Your task to perform on an android device: Clear the cart on ebay.com. Image 0: 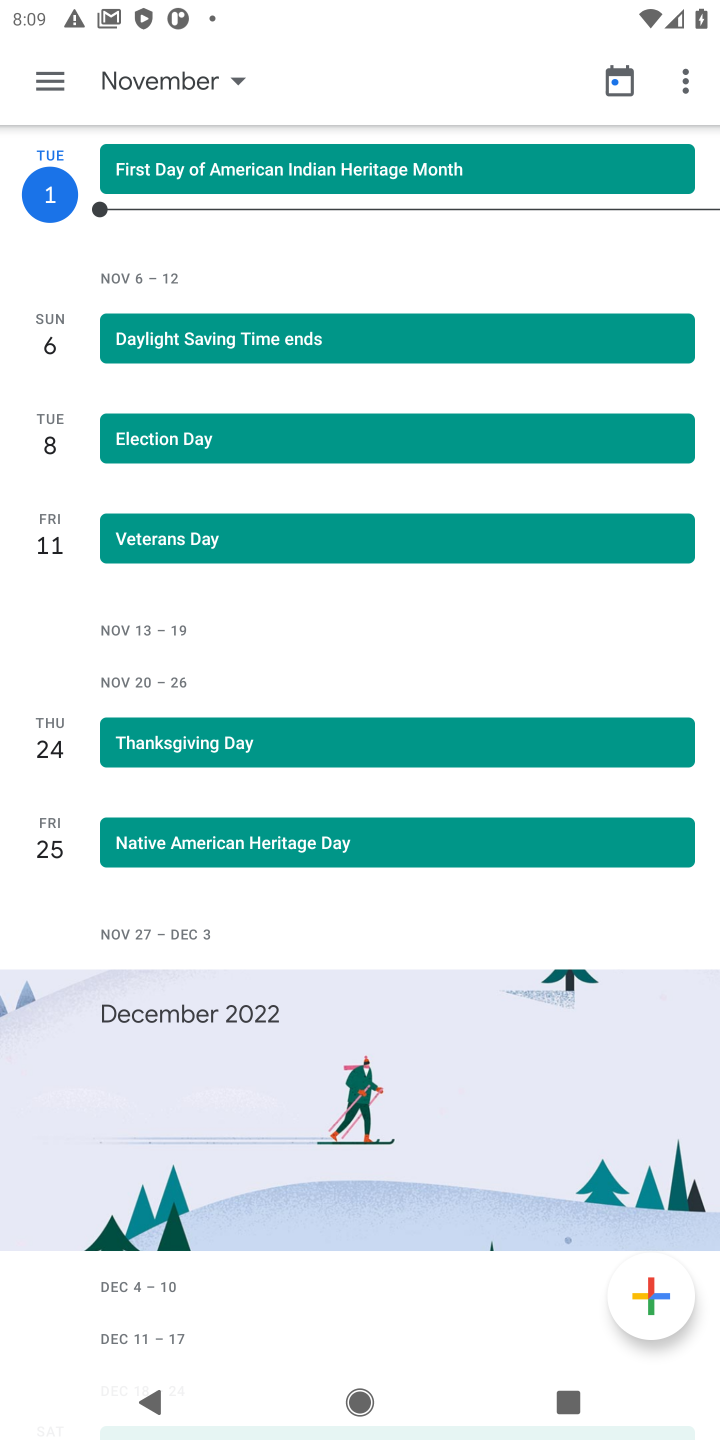
Step 0: press home button
Your task to perform on an android device: Clear the cart on ebay.com. Image 1: 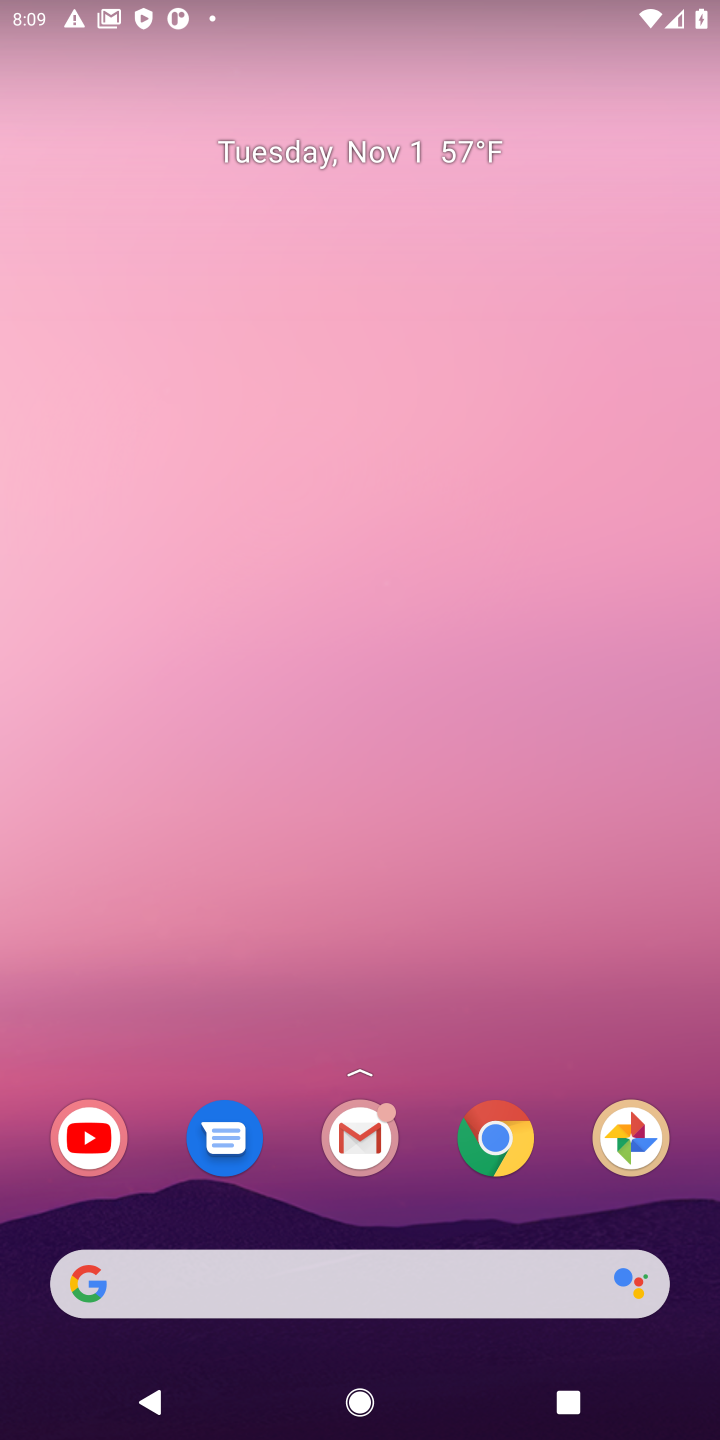
Step 1: click (504, 1139)
Your task to perform on an android device: Clear the cart on ebay.com. Image 2: 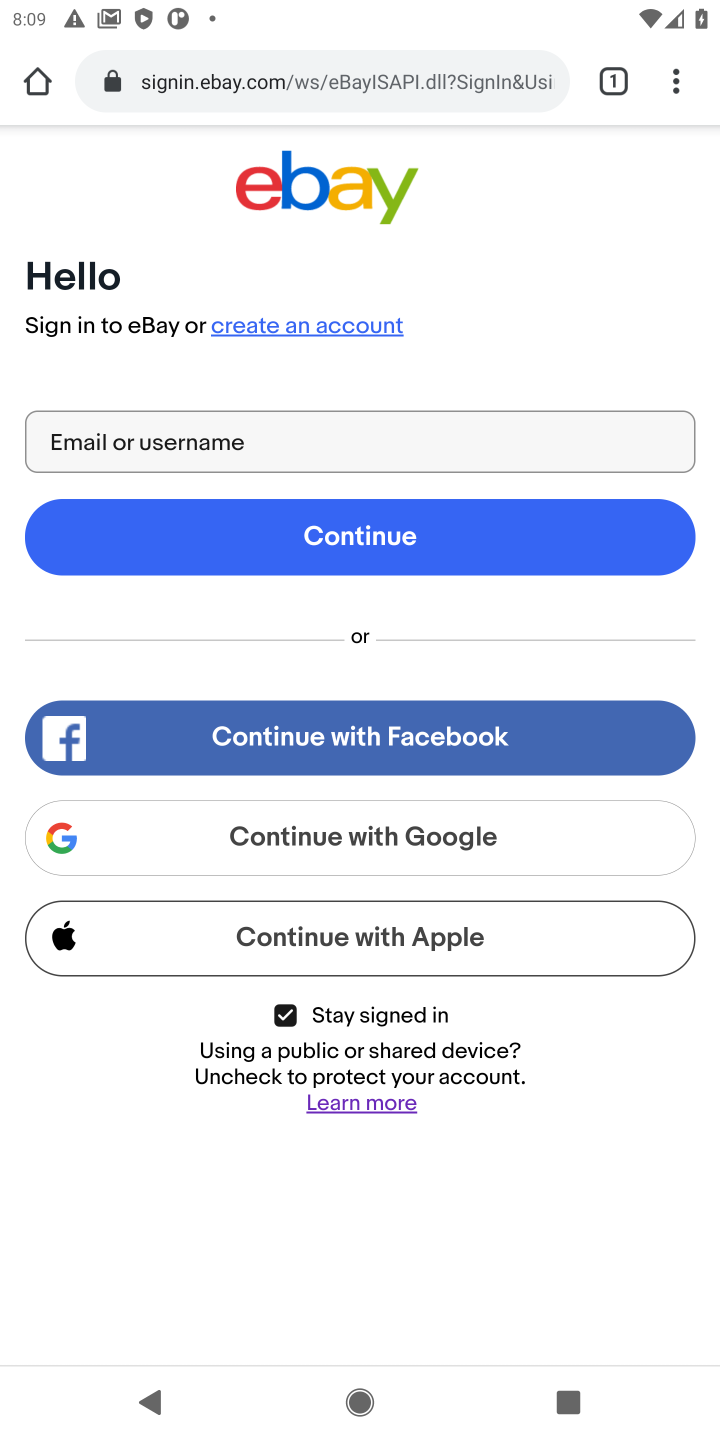
Step 2: click (235, 88)
Your task to perform on an android device: Clear the cart on ebay.com. Image 3: 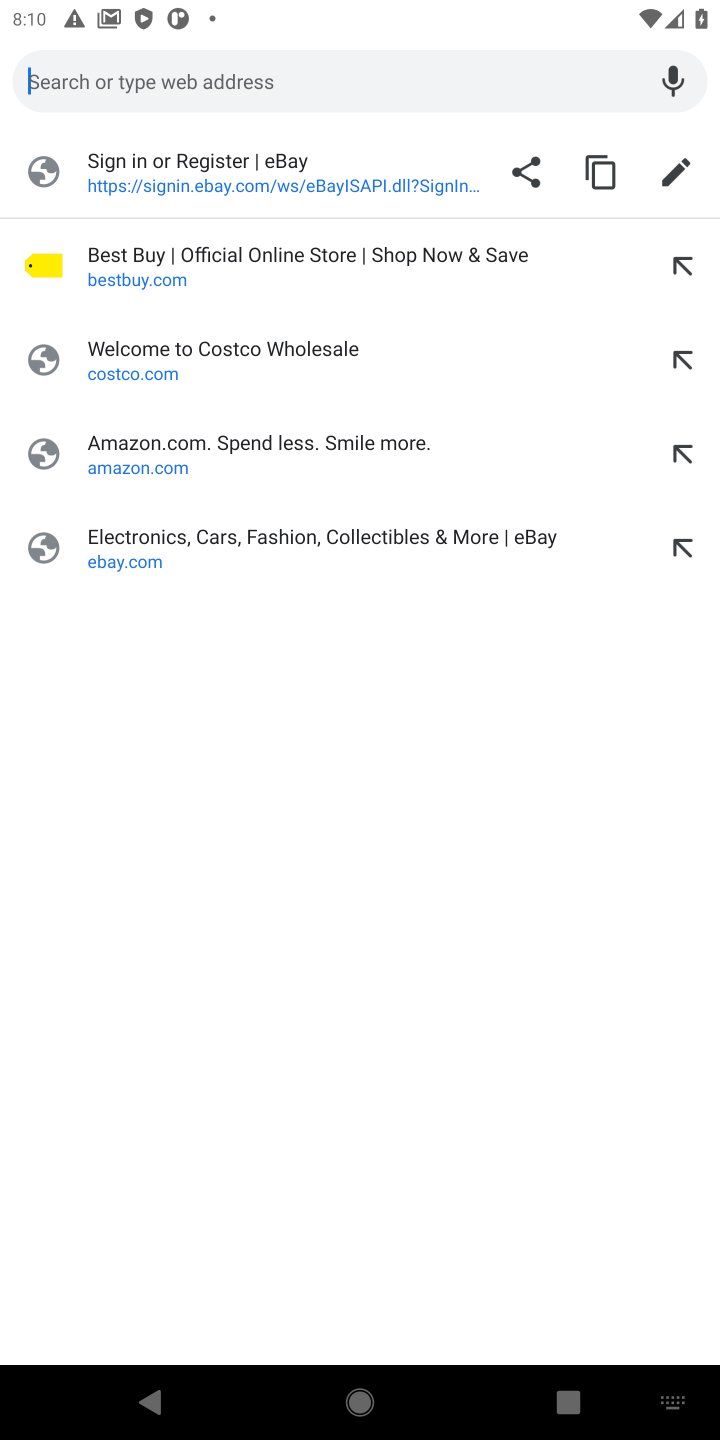
Step 3: type "ebay.com"
Your task to perform on an android device: Clear the cart on ebay.com. Image 4: 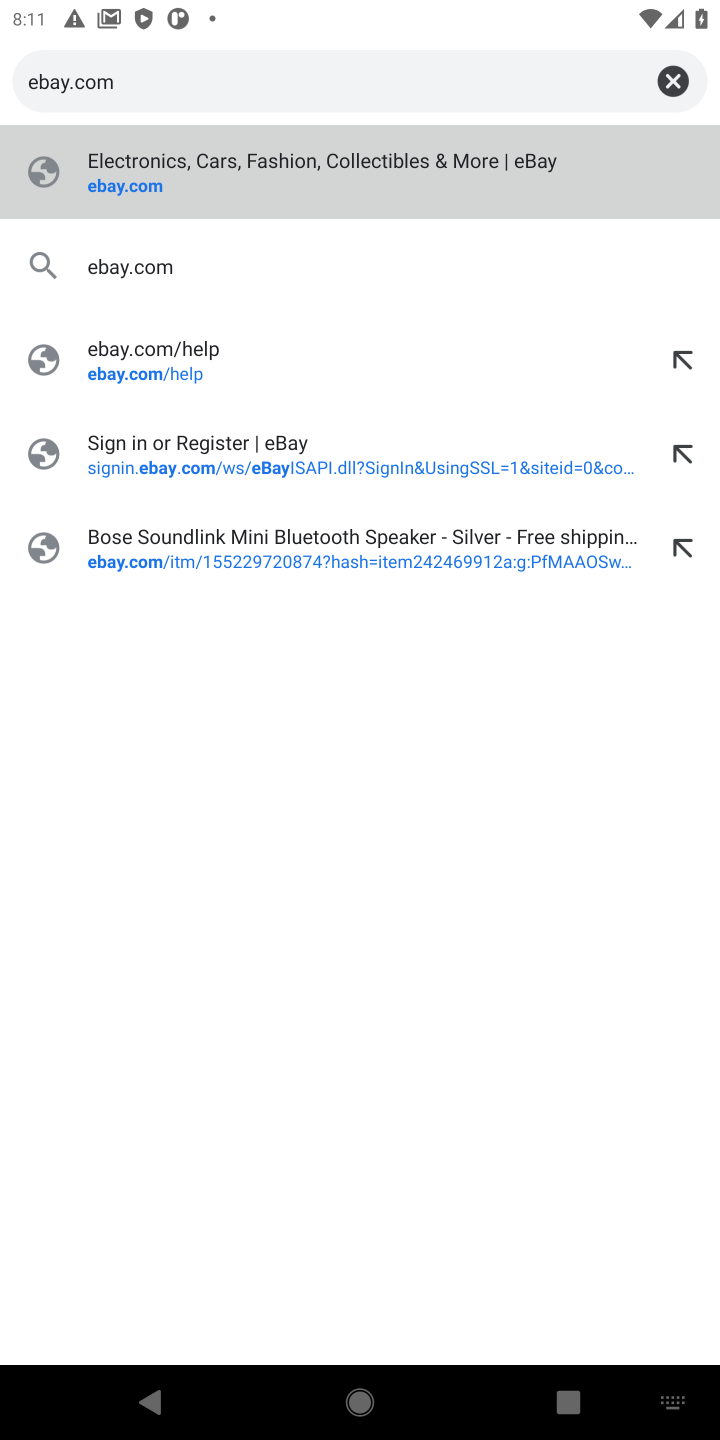
Step 4: click (136, 196)
Your task to perform on an android device: Clear the cart on ebay.com. Image 5: 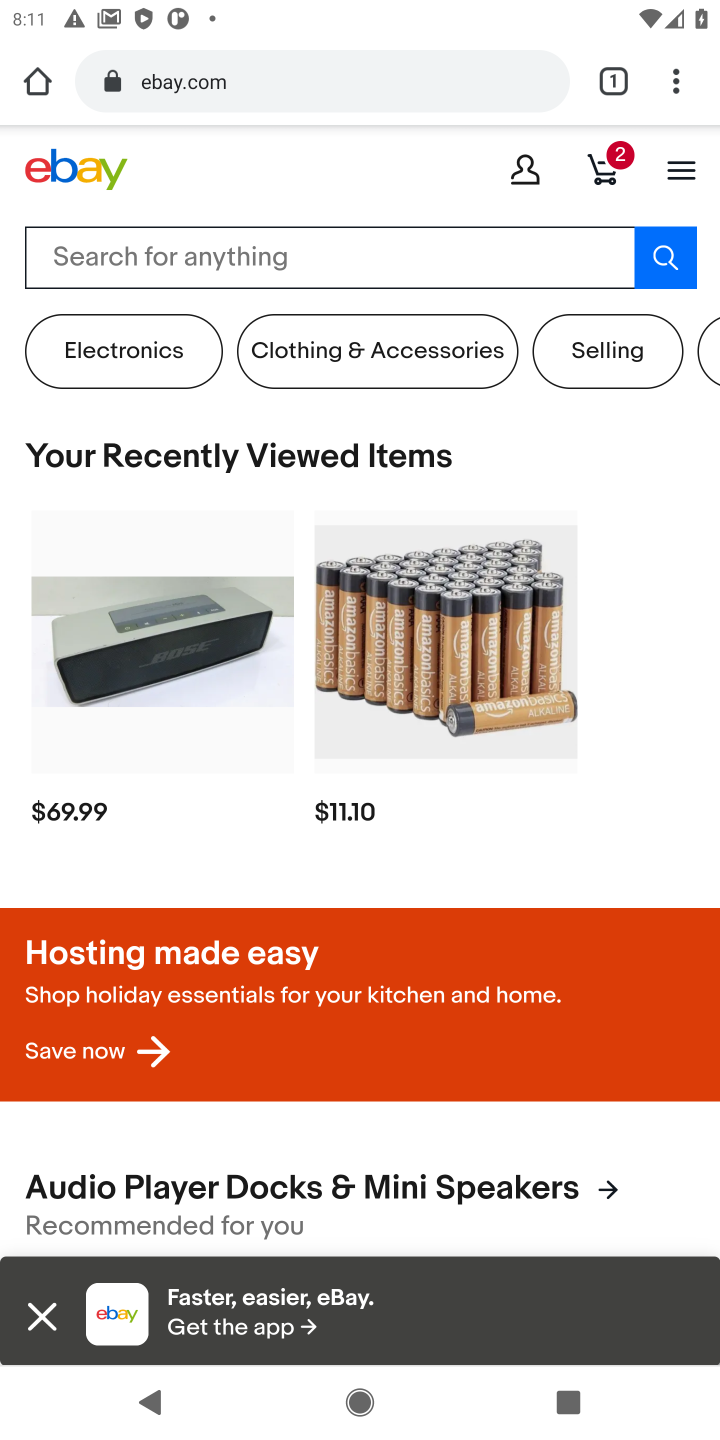
Step 5: click (600, 172)
Your task to perform on an android device: Clear the cart on ebay.com. Image 6: 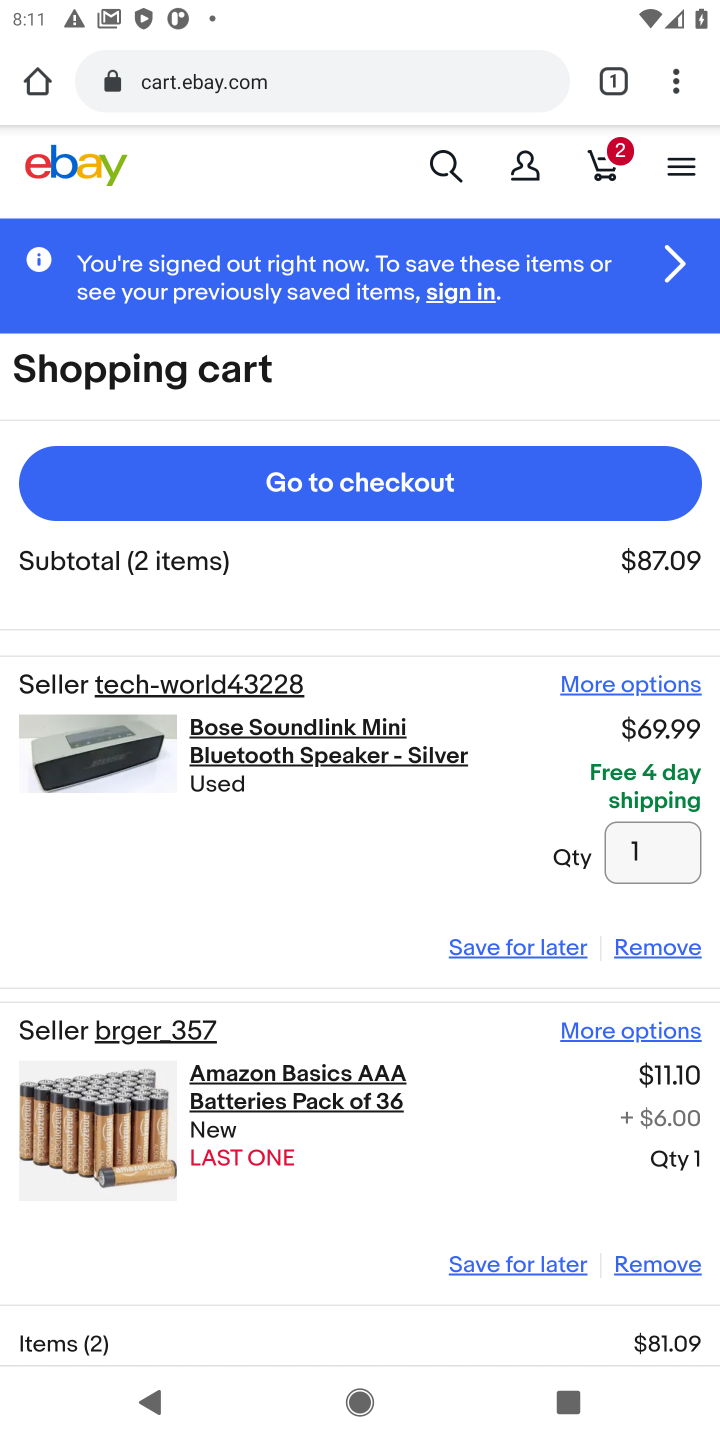
Step 6: click (667, 954)
Your task to perform on an android device: Clear the cart on ebay.com. Image 7: 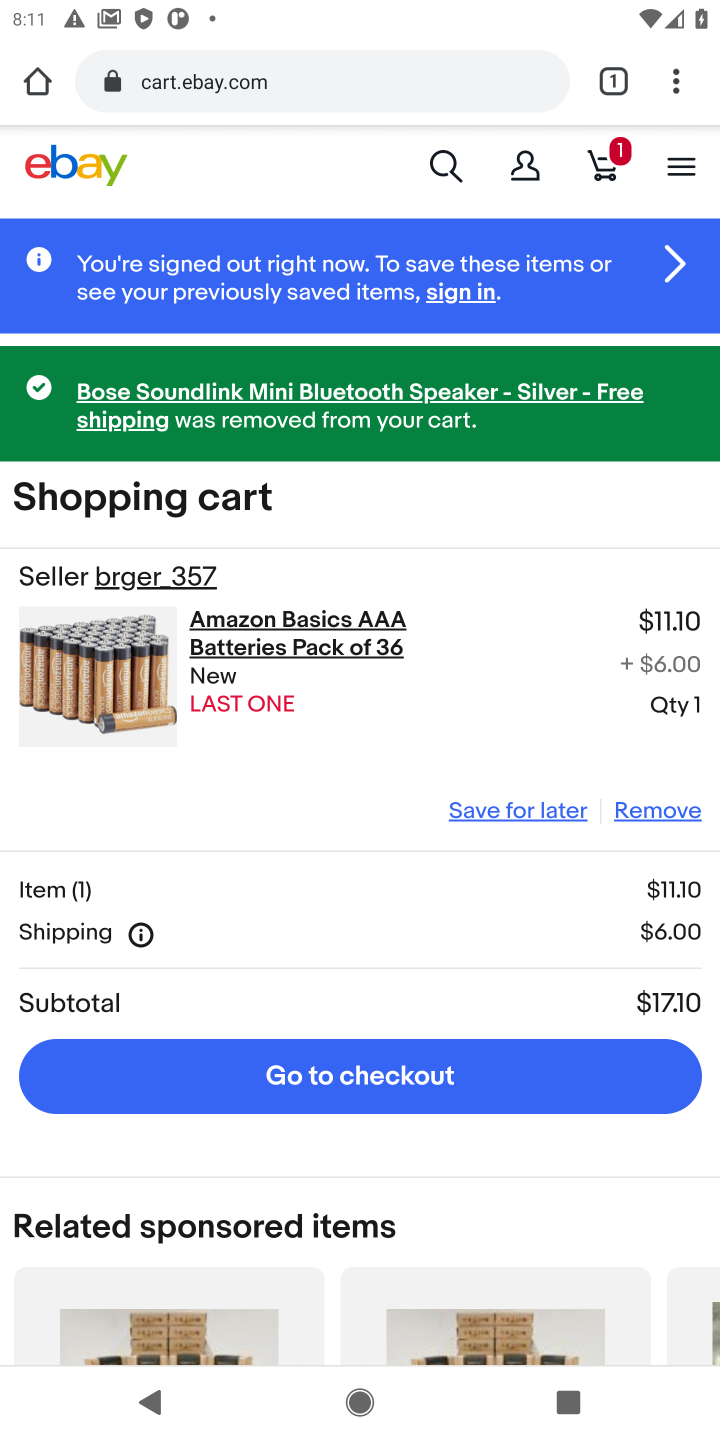
Step 7: click (650, 814)
Your task to perform on an android device: Clear the cart on ebay.com. Image 8: 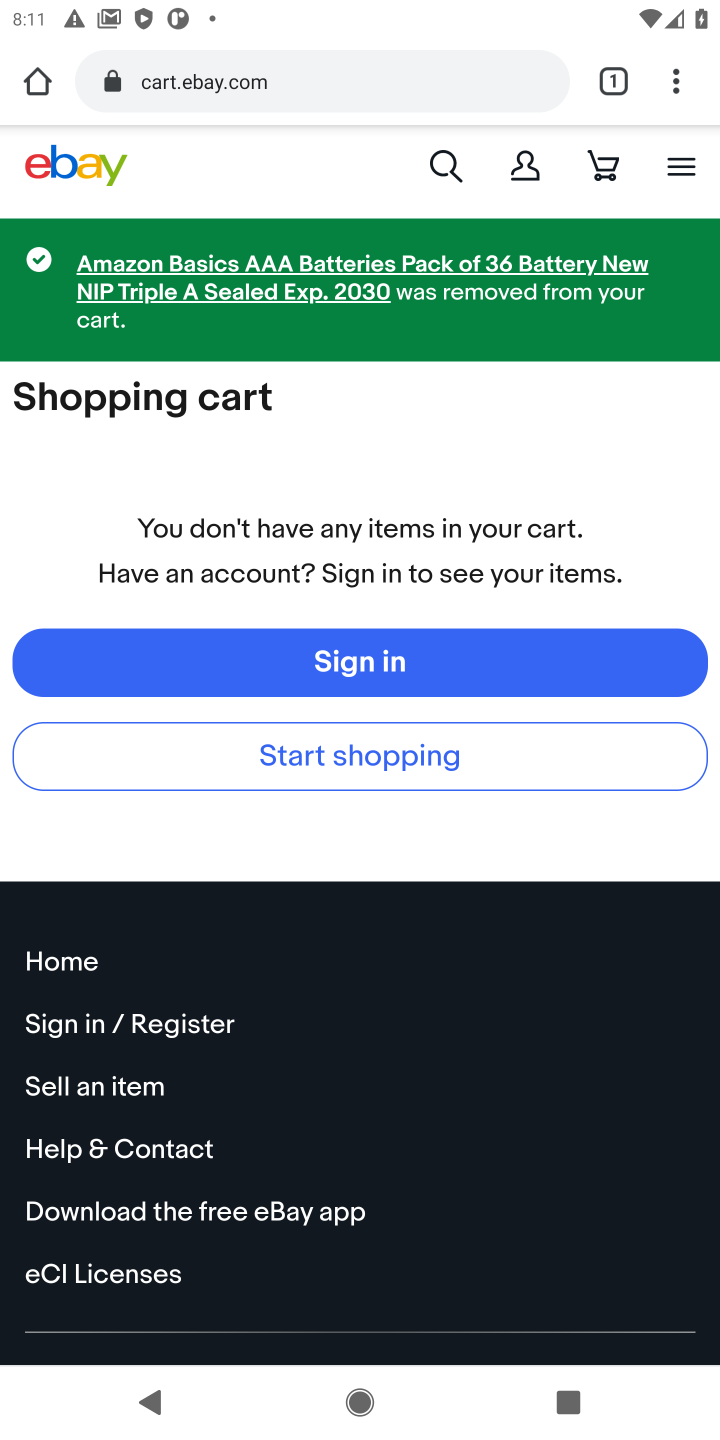
Step 8: task complete